Your task to perform on an android device: turn on data saver in the chrome app Image 0: 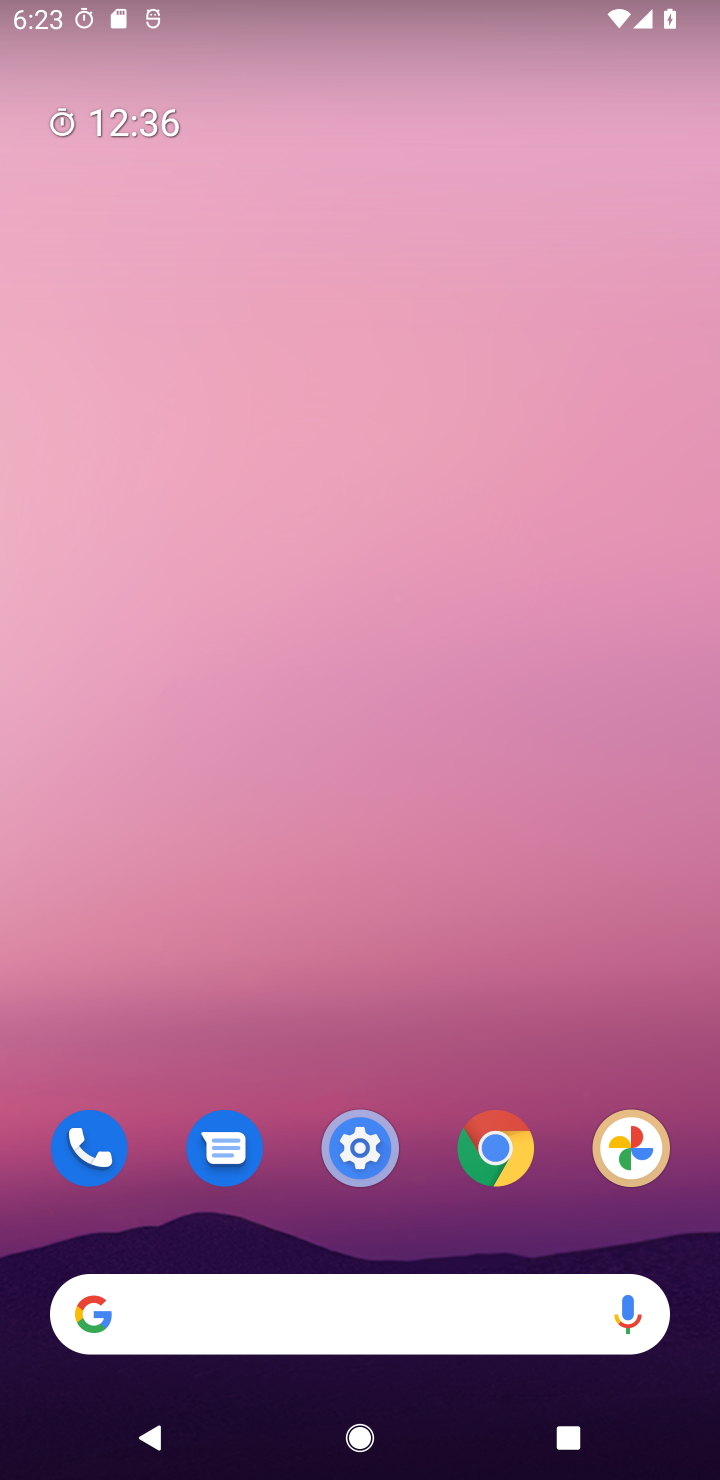
Step 0: click (524, 1133)
Your task to perform on an android device: turn on data saver in the chrome app Image 1: 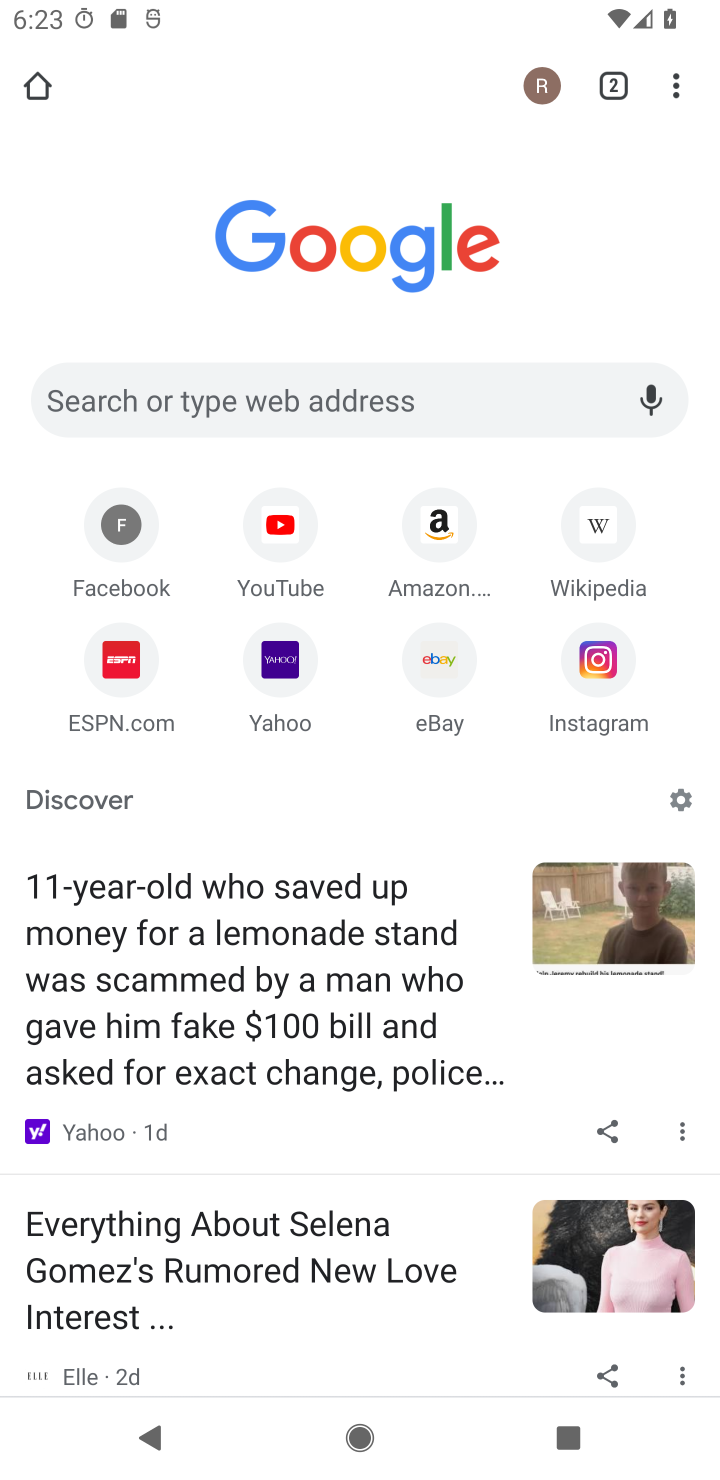
Step 1: click (669, 87)
Your task to perform on an android device: turn on data saver in the chrome app Image 2: 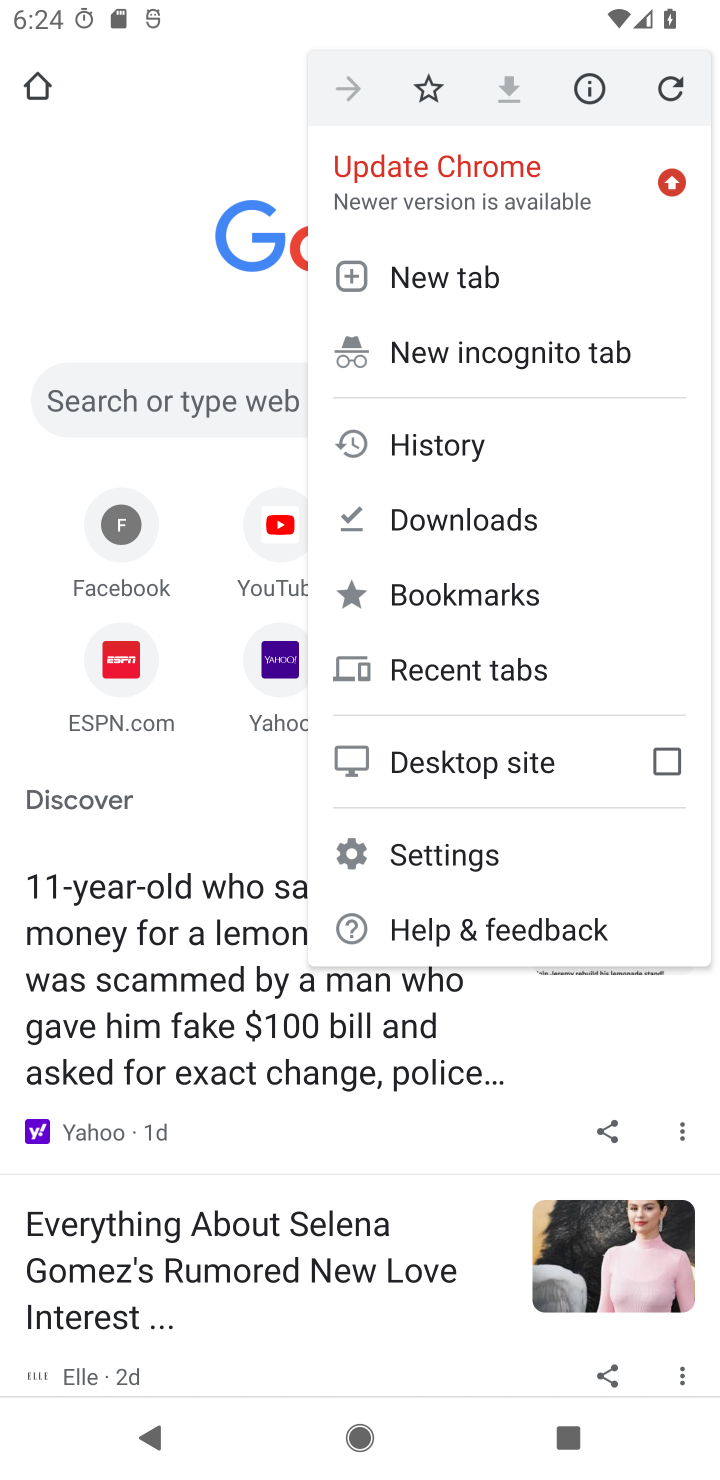
Step 2: click (429, 841)
Your task to perform on an android device: turn on data saver in the chrome app Image 3: 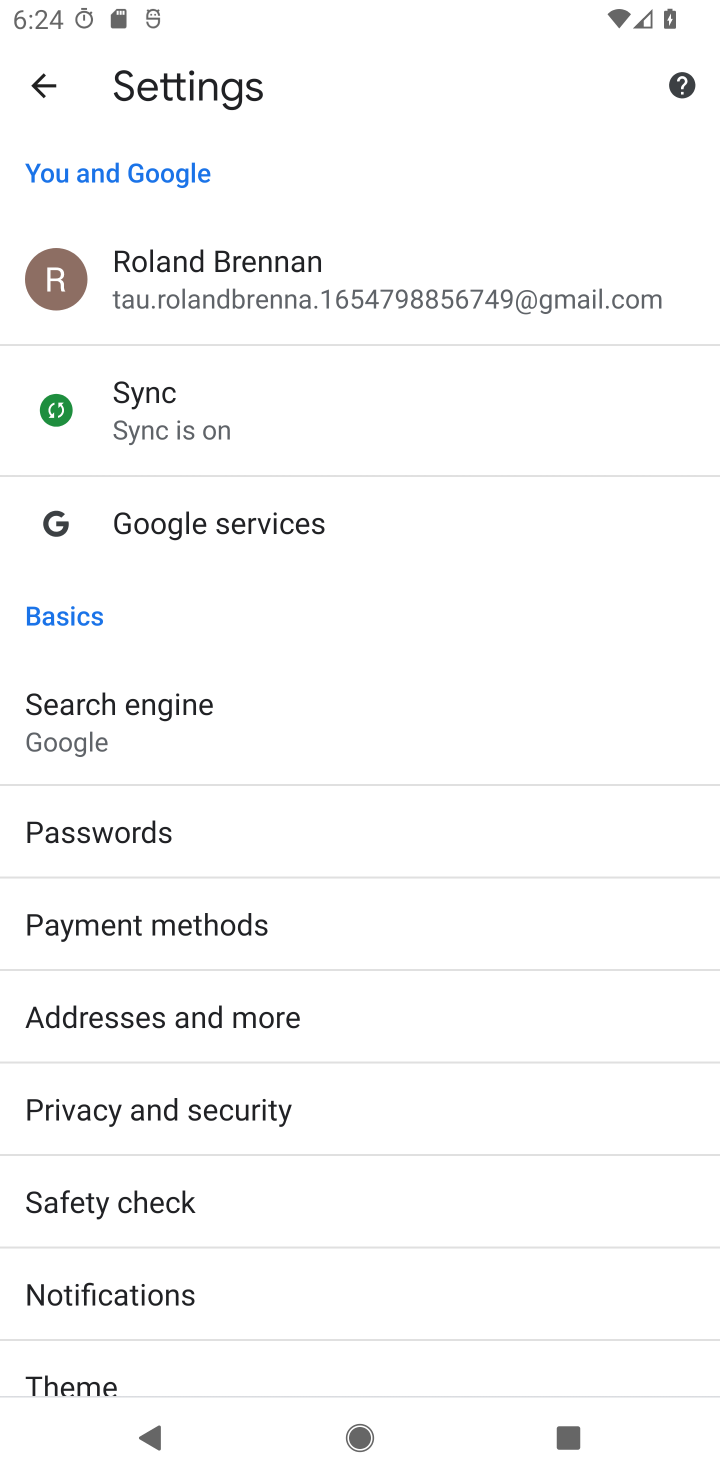
Step 3: drag from (264, 1278) to (297, 531)
Your task to perform on an android device: turn on data saver in the chrome app Image 4: 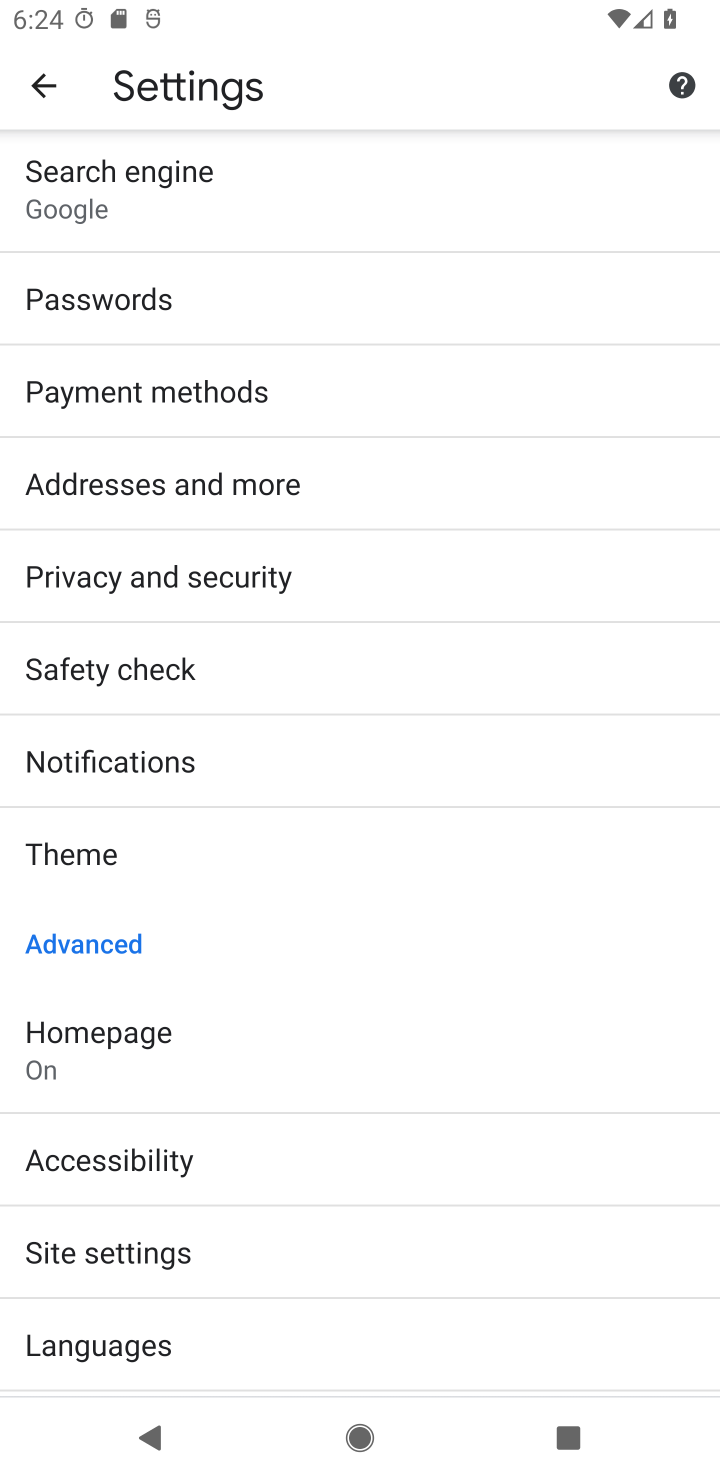
Step 4: drag from (159, 1165) to (245, 554)
Your task to perform on an android device: turn on data saver in the chrome app Image 5: 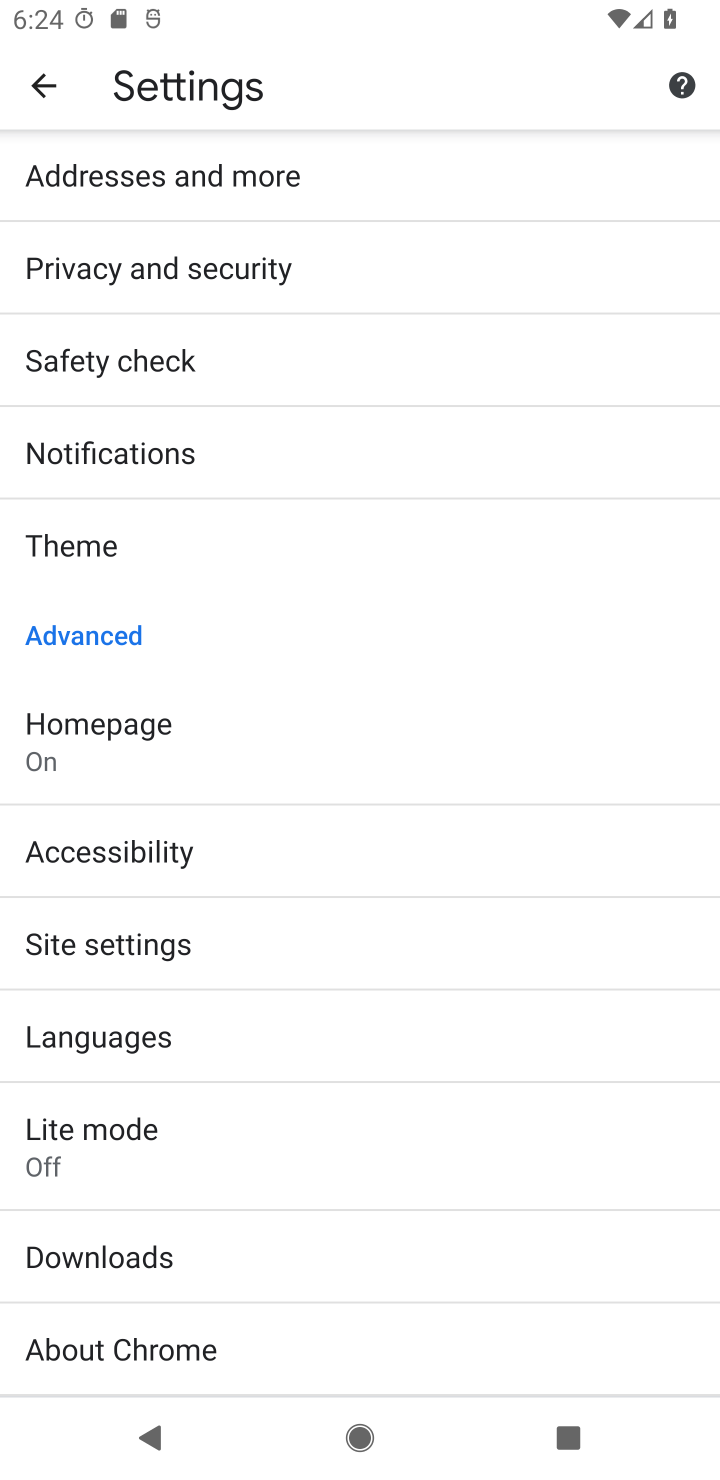
Step 5: click (109, 1161)
Your task to perform on an android device: turn on data saver in the chrome app Image 6: 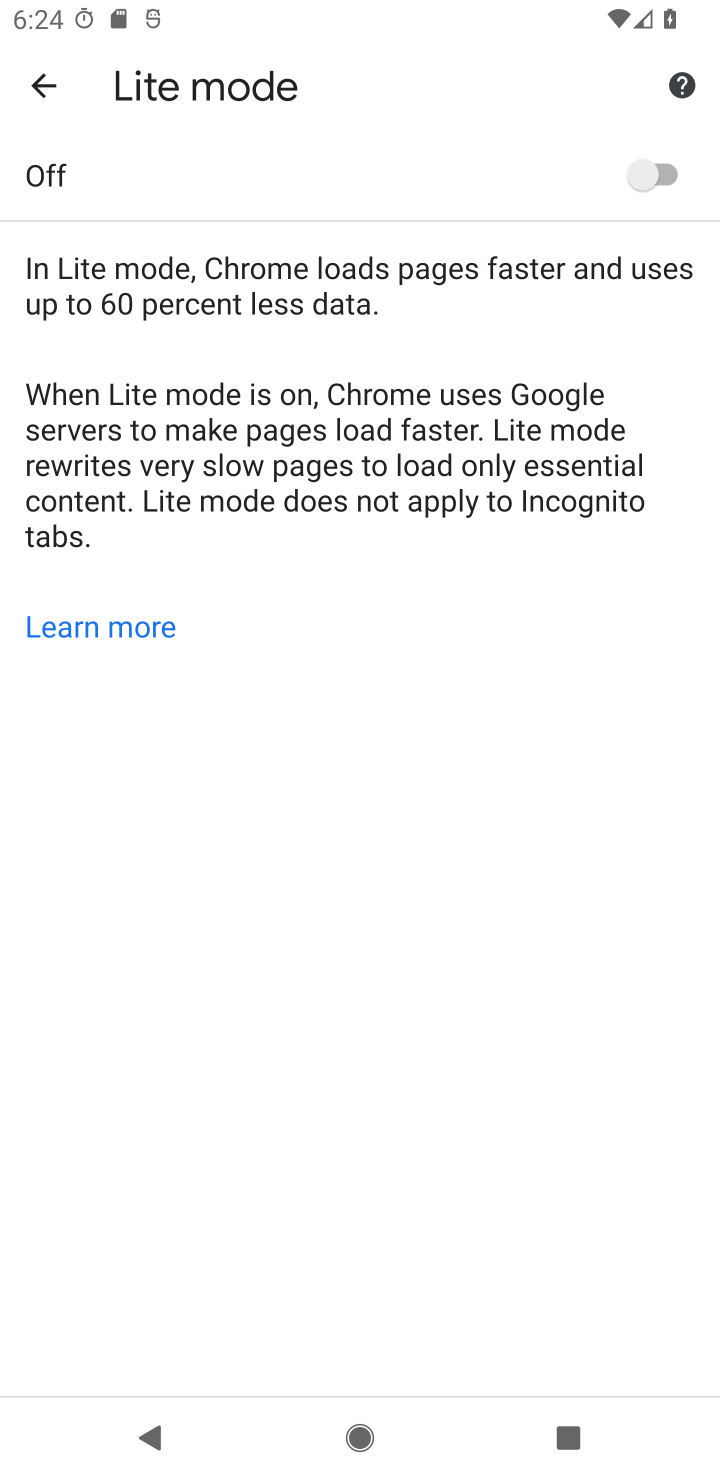
Step 6: click (678, 185)
Your task to perform on an android device: turn on data saver in the chrome app Image 7: 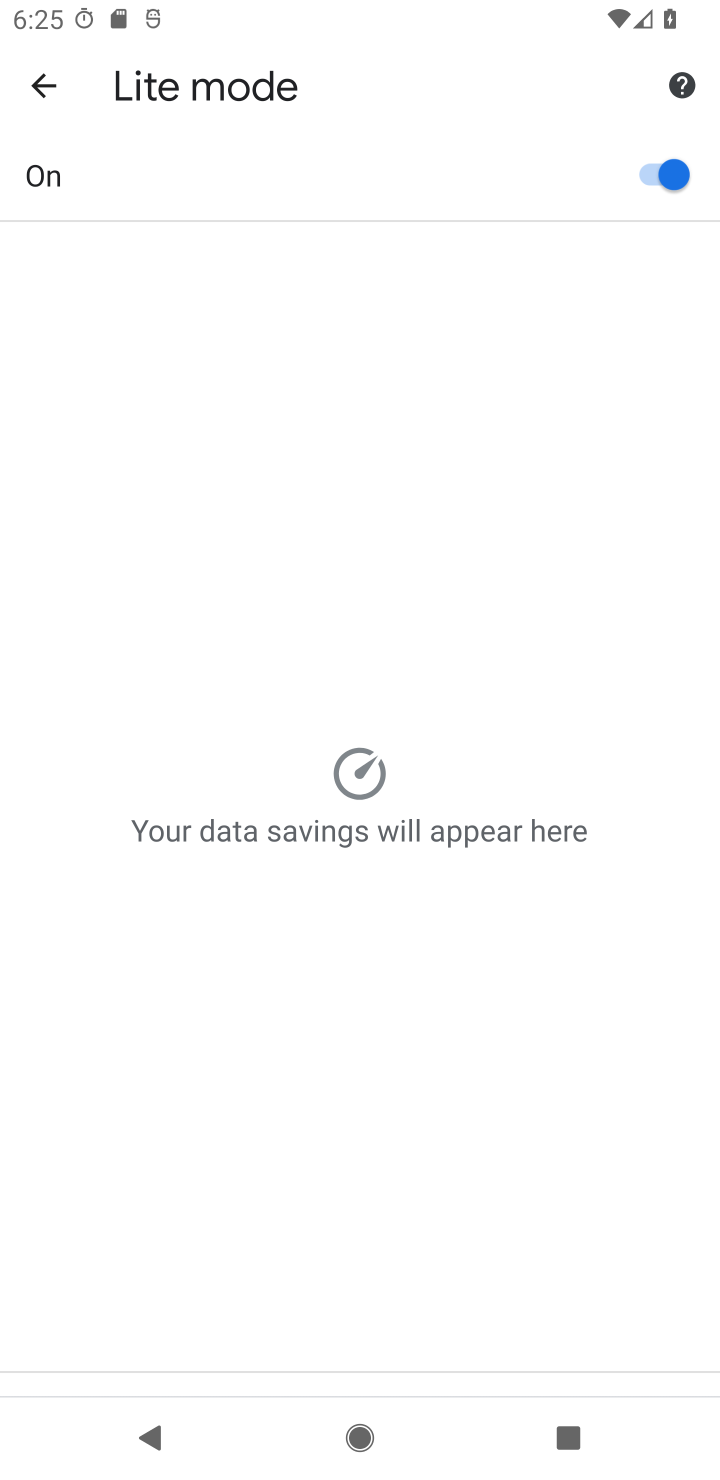
Step 7: task complete